Your task to perform on an android device: turn off sleep mode Image 0: 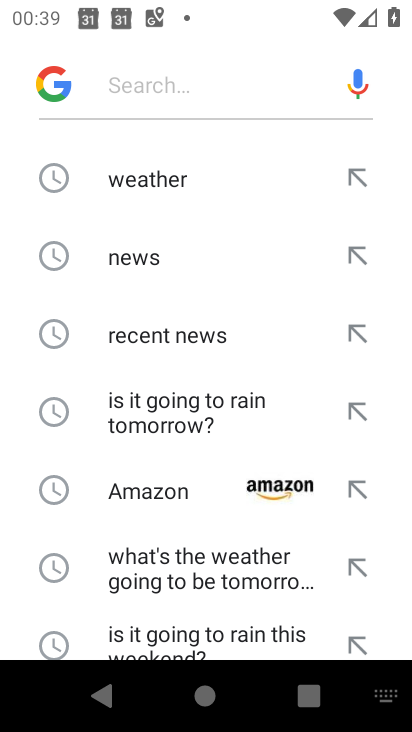
Step 0: press home button
Your task to perform on an android device: turn off sleep mode Image 1: 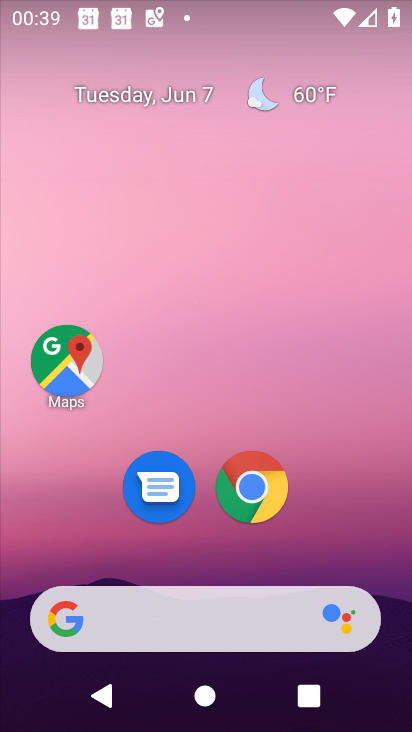
Step 1: drag from (368, 562) to (264, 263)
Your task to perform on an android device: turn off sleep mode Image 2: 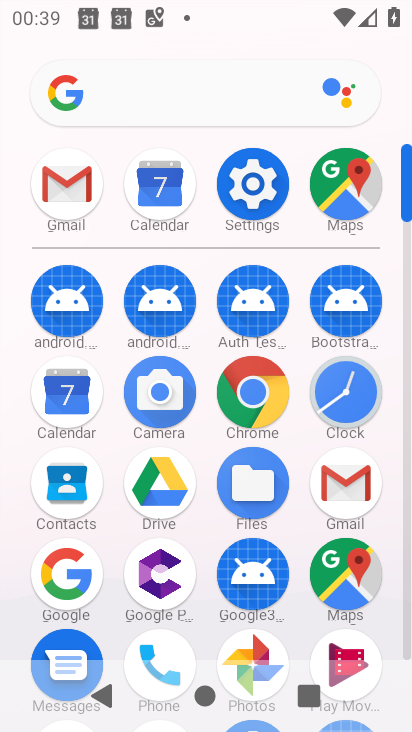
Step 2: click (402, 645)
Your task to perform on an android device: turn off sleep mode Image 3: 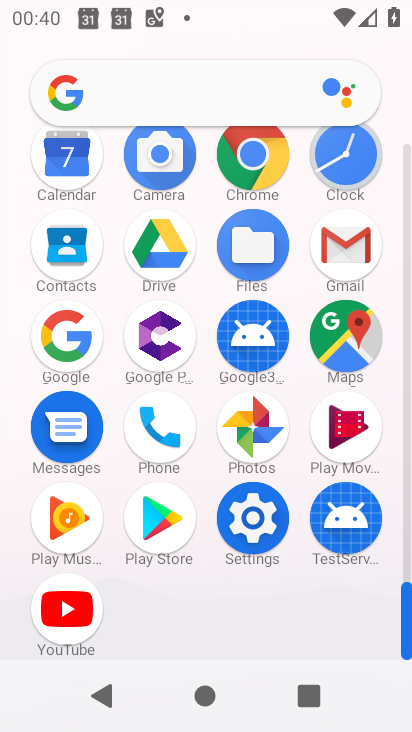
Step 3: click (268, 516)
Your task to perform on an android device: turn off sleep mode Image 4: 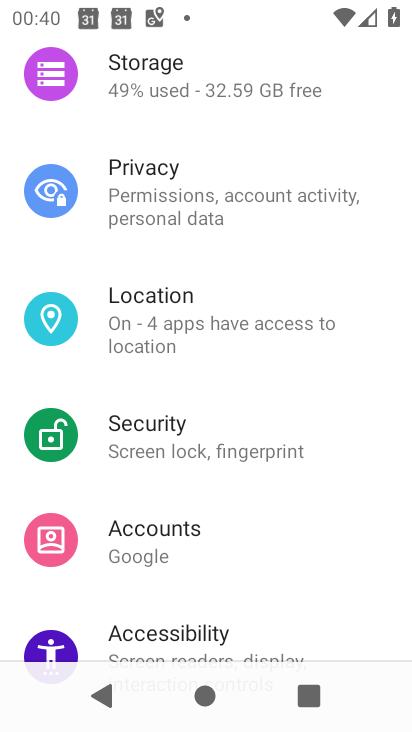
Step 4: drag from (214, 126) to (228, 387)
Your task to perform on an android device: turn off sleep mode Image 5: 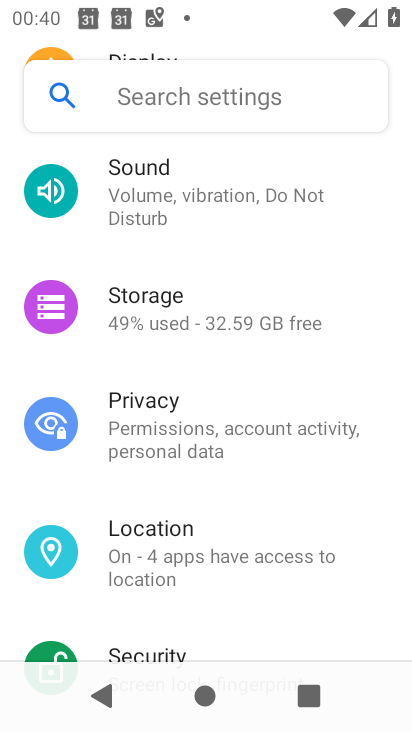
Step 5: drag from (228, 387) to (244, 529)
Your task to perform on an android device: turn off sleep mode Image 6: 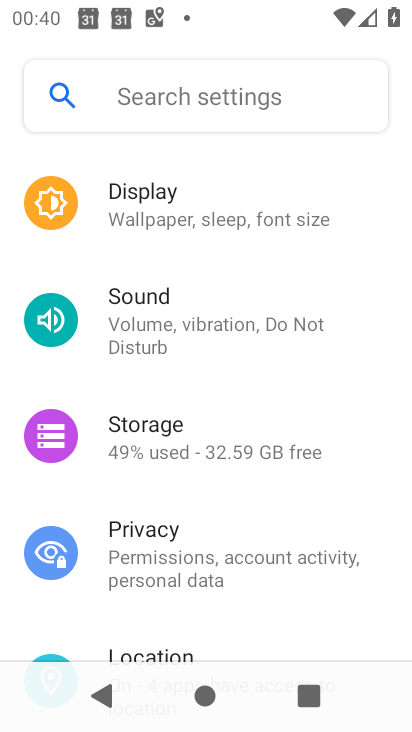
Step 6: click (218, 220)
Your task to perform on an android device: turn off sleep mode Image 7: 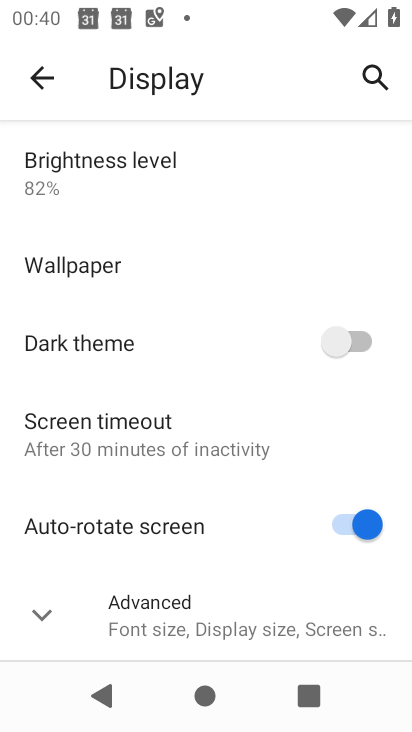
Step 7: task complete